Your task to perform on an android device: Open Android settings Image 0: 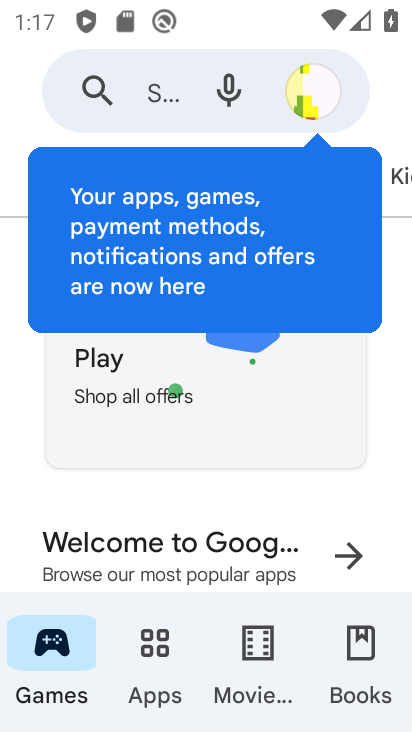
Step 0: press home button
Your task to perform on an android device: Open Android settings Image 1: 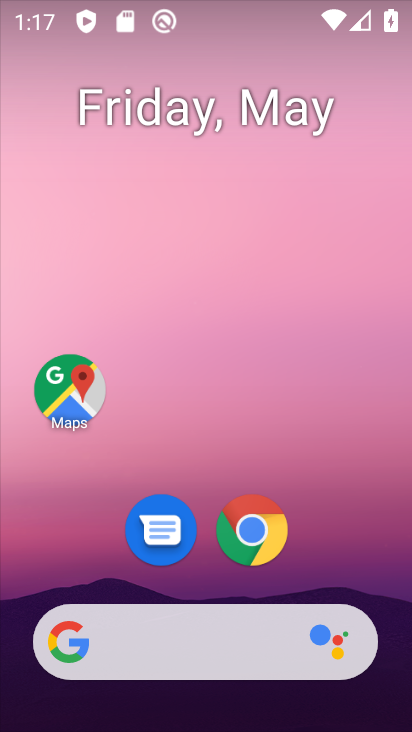
Step 1: drag from (351, 566) to (333, 5)
Your task to perform on an android device: Open Android settings Image 2: 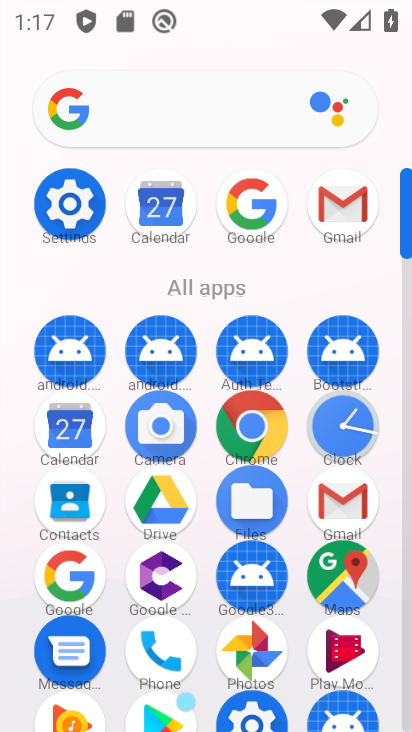
Step 2: click (76, 206)
Your task to perform on an android device: Open Android settings Image 3: 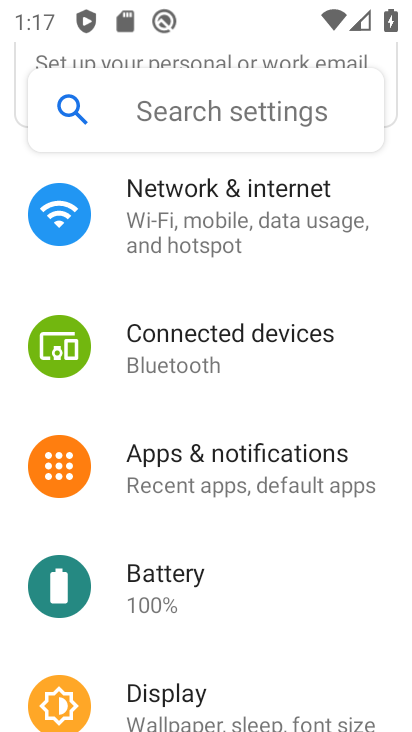
Step 3: drag from (259, 648) to (315, 313)
Your task to perform on an android device: Open Android settings Image 4: 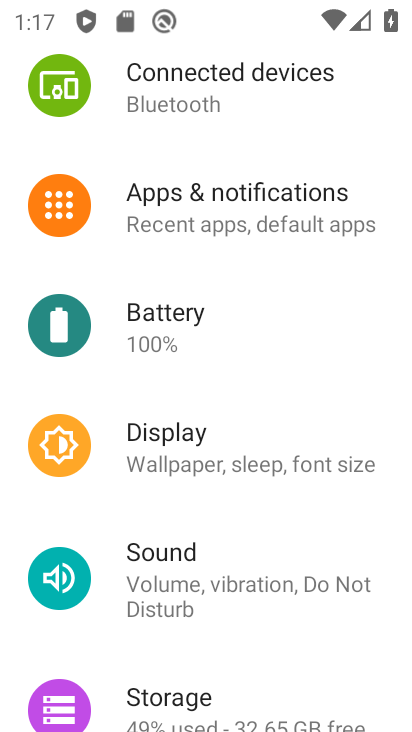
Step 4: drag from (268, 669) to (271, 122)
Your task to perform on an android device: Open Android settings Image 5: 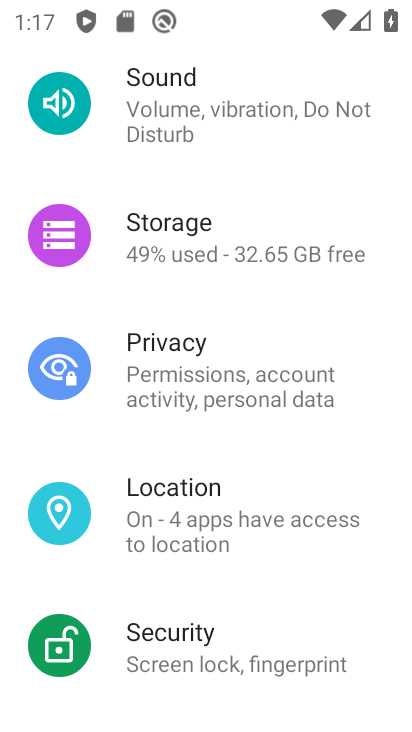
Step 5: drag from (166, 545) to (176, 87)
Your task to perform on an android device: Open Android settings Image 6: 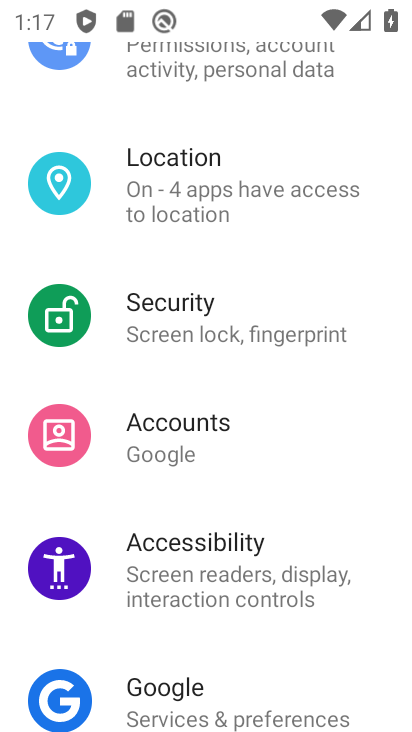
Step 6: drag from (196, 612) to (233, 55)
Your task to perform on an android device: Open Android settings Image 7: 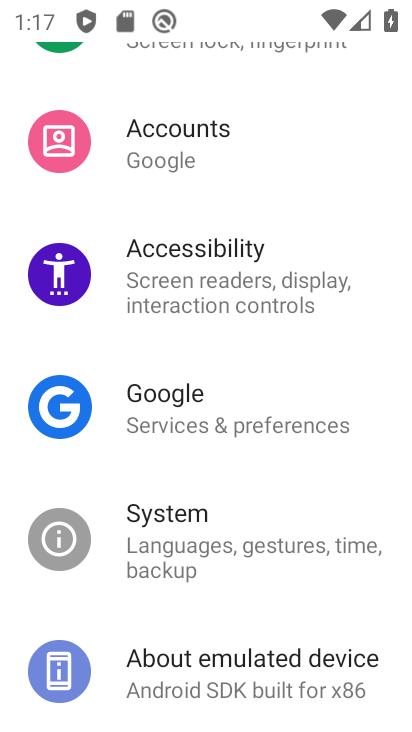
Step 7: click (166, 563)
Your task to perform on an android device: Open Android settings Image 8: 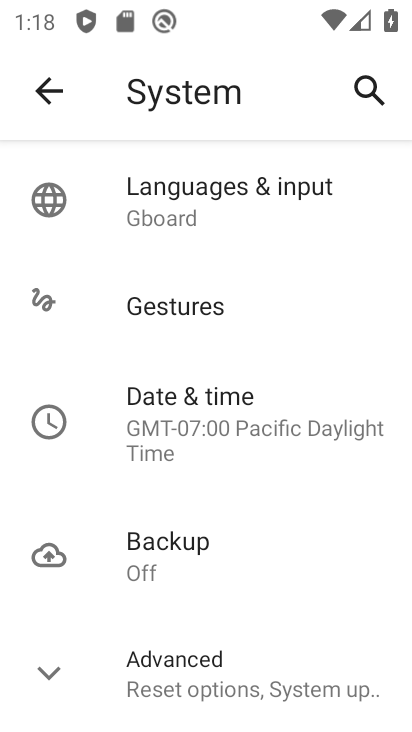
Step 8: task complete